Your task to perform on an android device: see sites visited before in the chrome app Image 0: 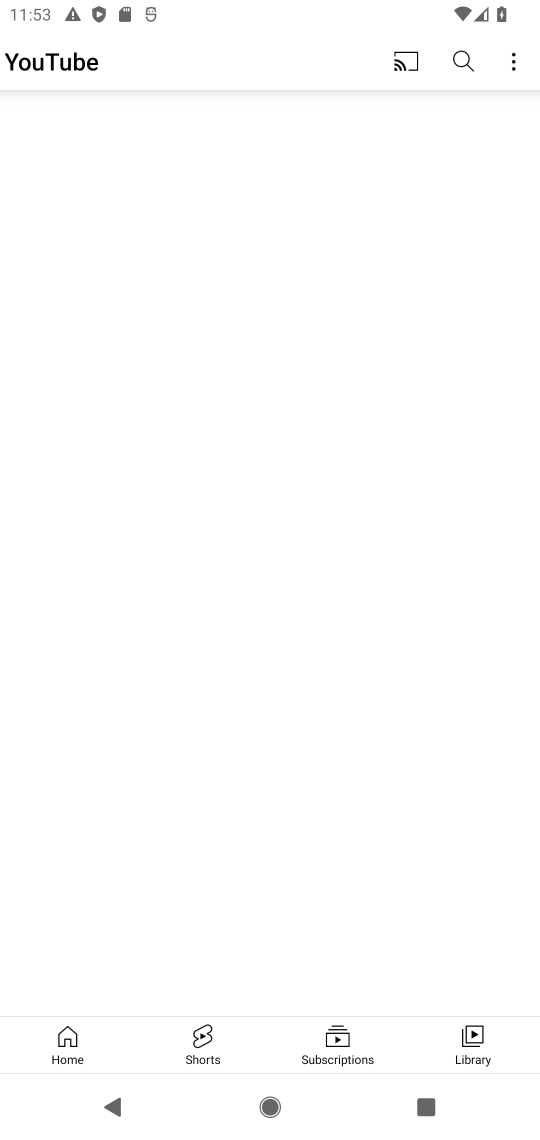
Step 0: click (281, 984)
Your task to perform on an android device: see sites visited before in the chrome app Image 1: 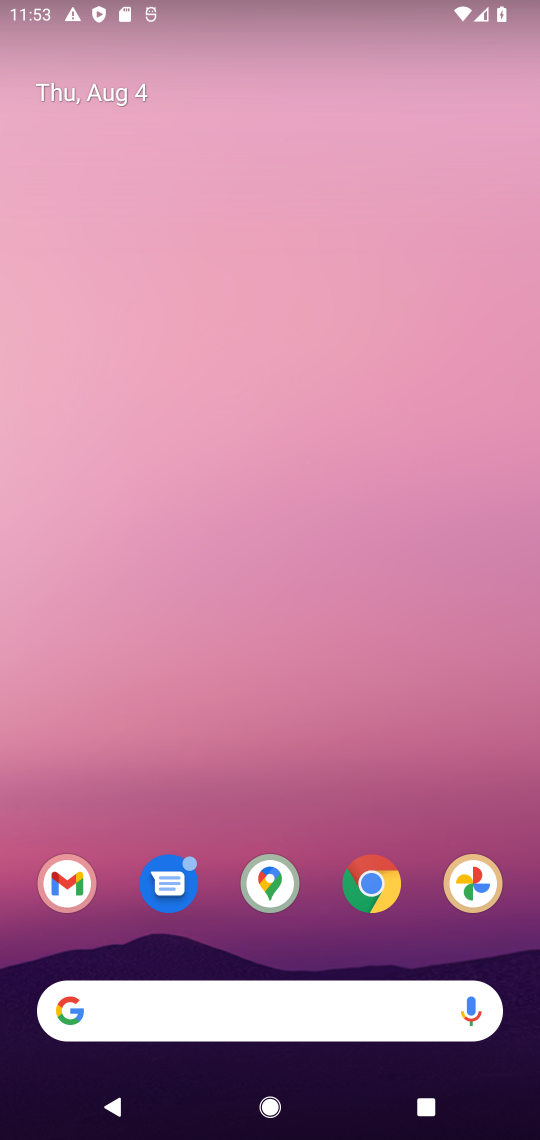
Step 1: drag from (277, 957) to (272, 374)
Your task to perform on an android device: see sites visited before in the chrome app Image 2: 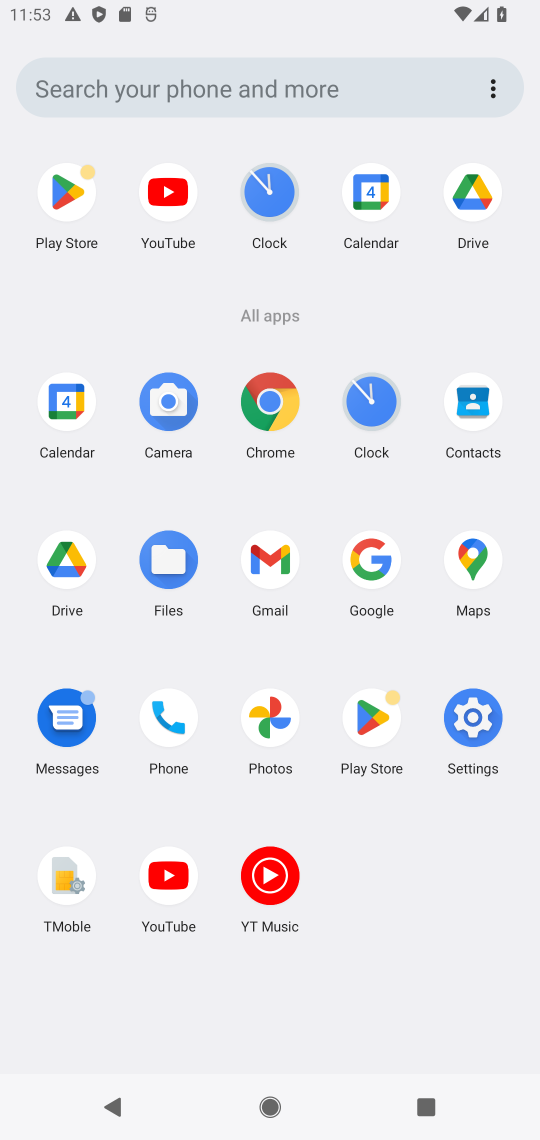
Step 2: click (273, 552)
Your task to perform on an android device: see sites visited before in the chrome app Image 3: 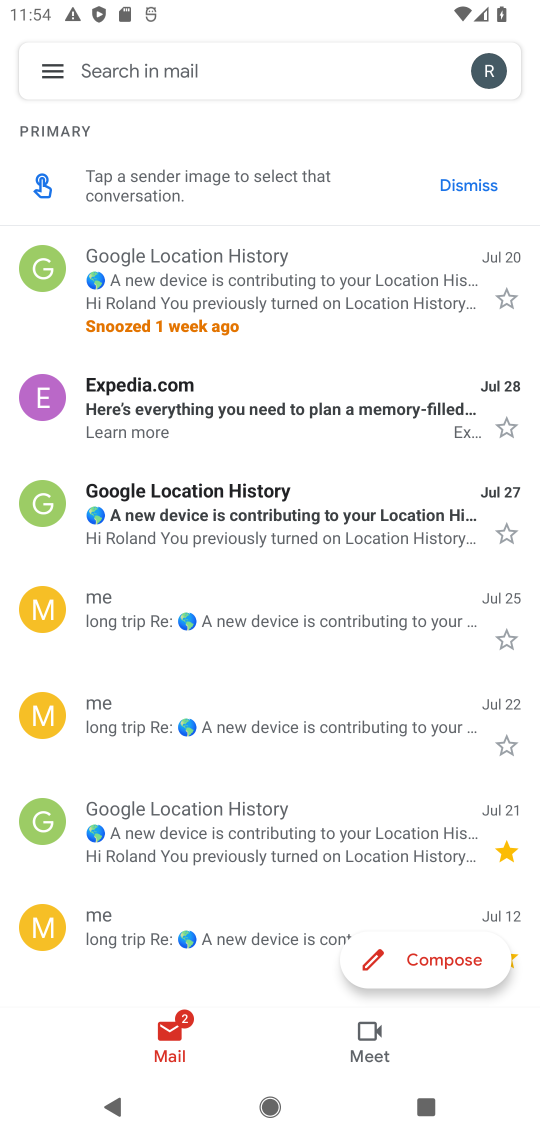
Step 3: click (38, 72)
Your task to perform on an android device: see sites visited before in the chrome app Image 4: 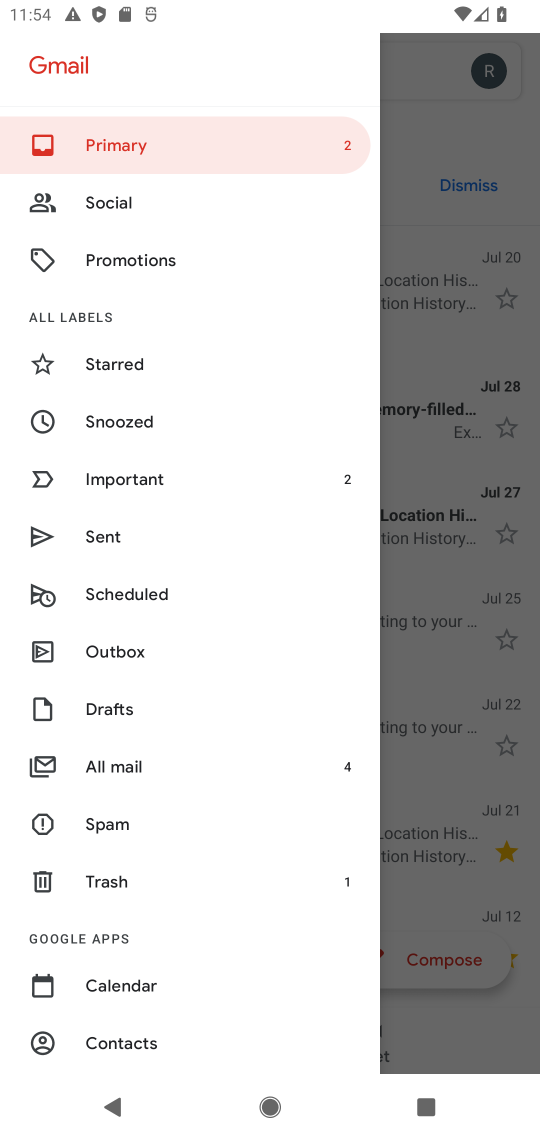
Step 4: press home button
Your task to perform on an android device: see sites visited before in the chrome app Image 5: 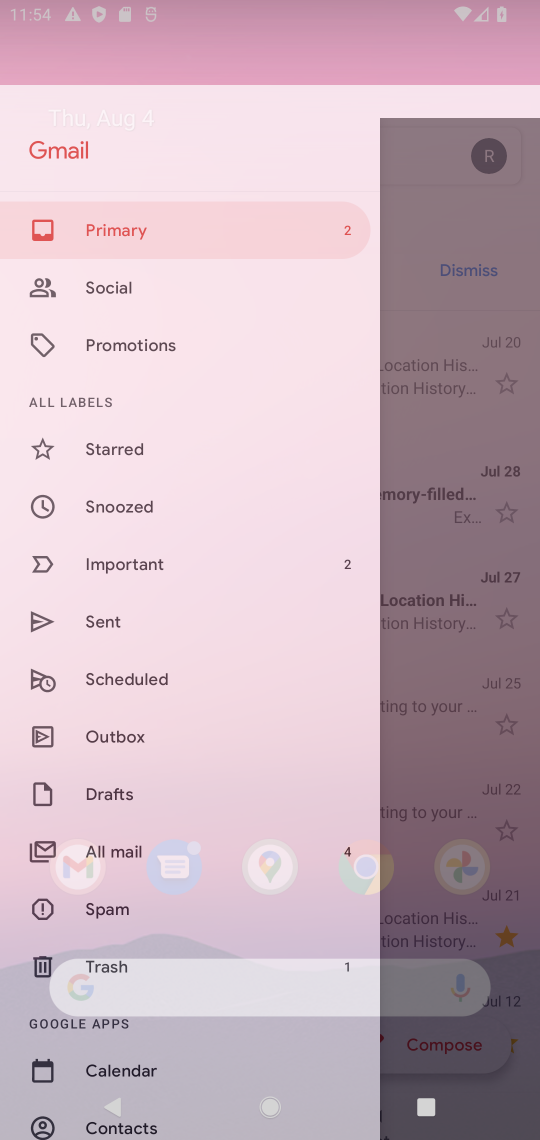
Step 5: drag from (258, 979) to (340, 360)
Your task to perform on an android device: see sites visited before in the chrome app Image 6: 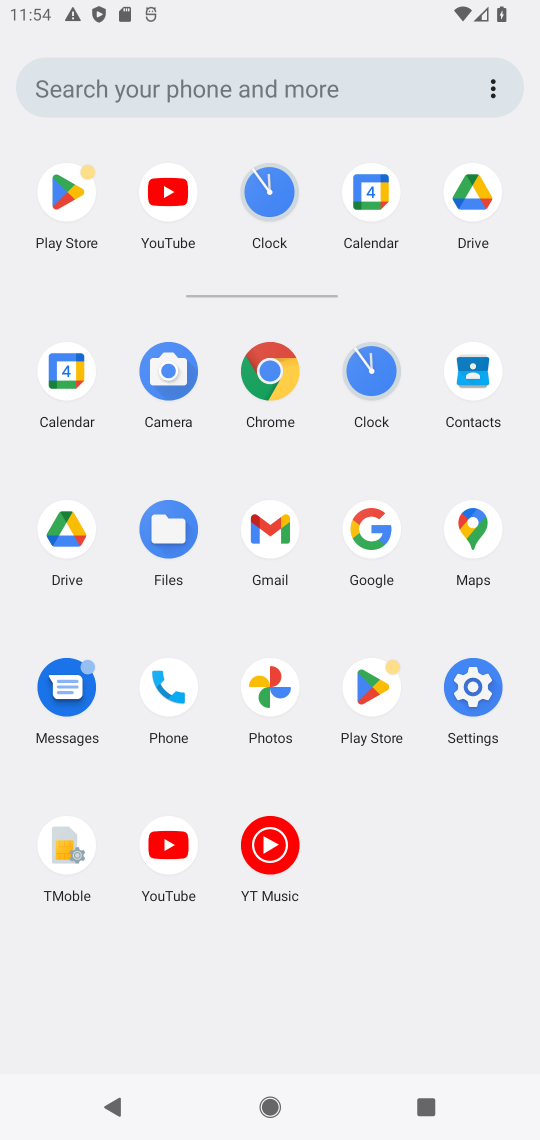
Step 6: click (272, 365)
Your task to perform on an android device: see sites visited before in the chrome app Image 7: 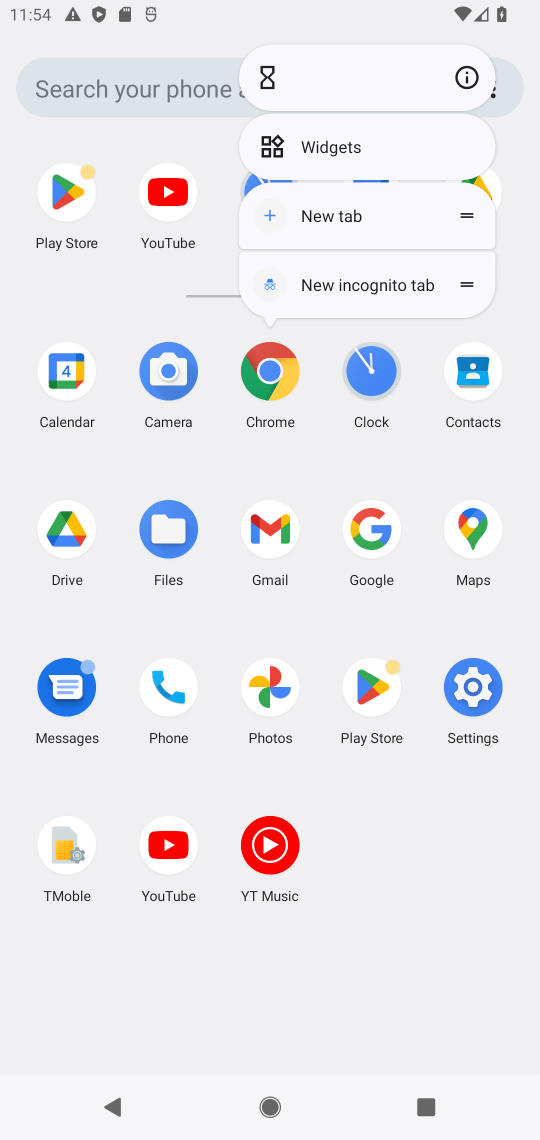
Step 7: click (462, 84)
Your task to perform on an android device: see sites visited before in the chrome app Image 8: 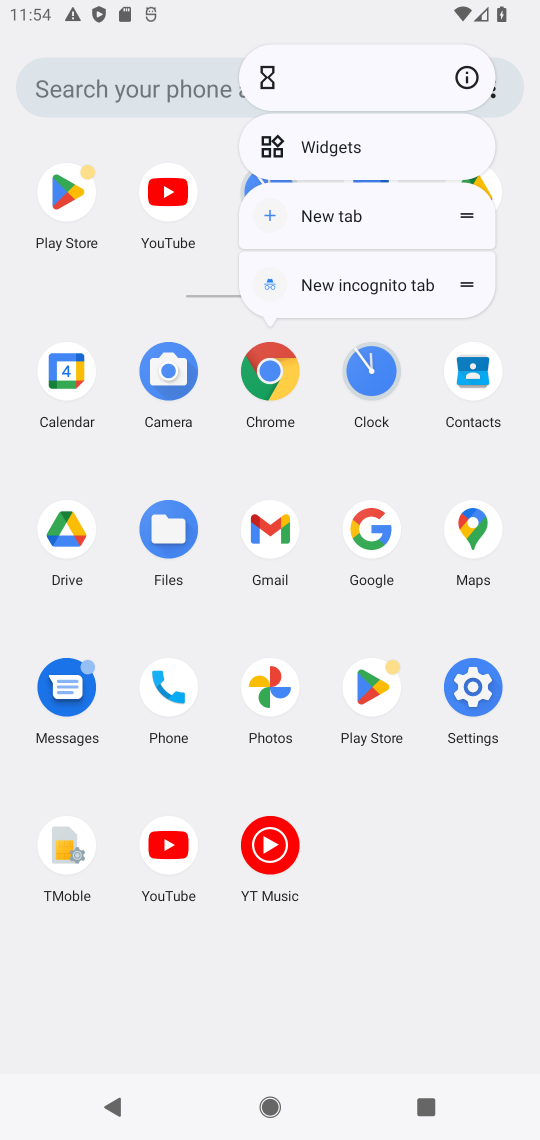
Step 8: click (484, 64)
Your task to perform on an android device: see sites visited before in the chrome app Image 9: 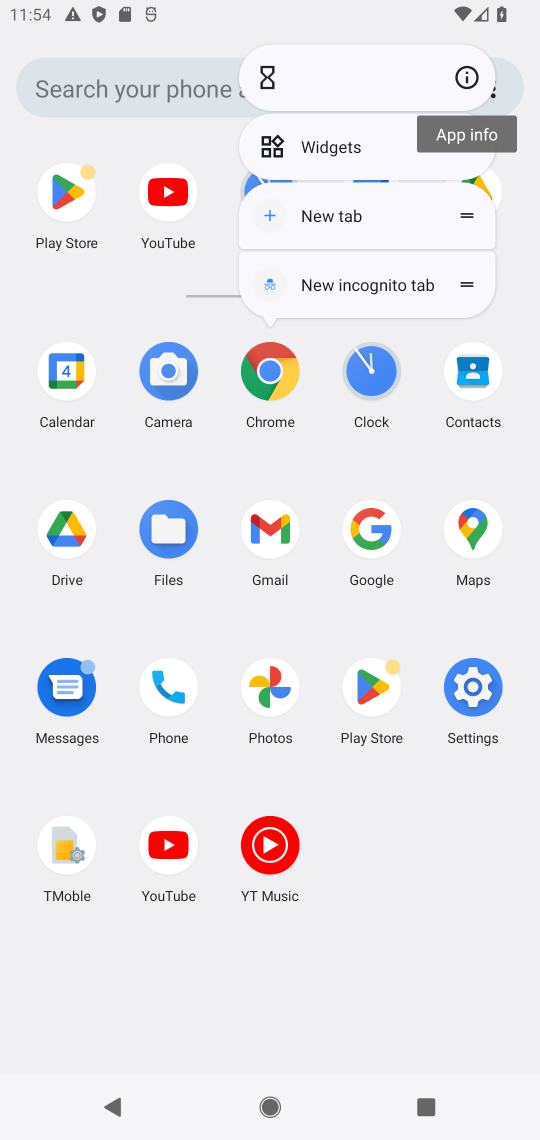
Step 9: click (471, 72)
Your task to perform on an android device: see sites visited before in the chrome app Image 10: 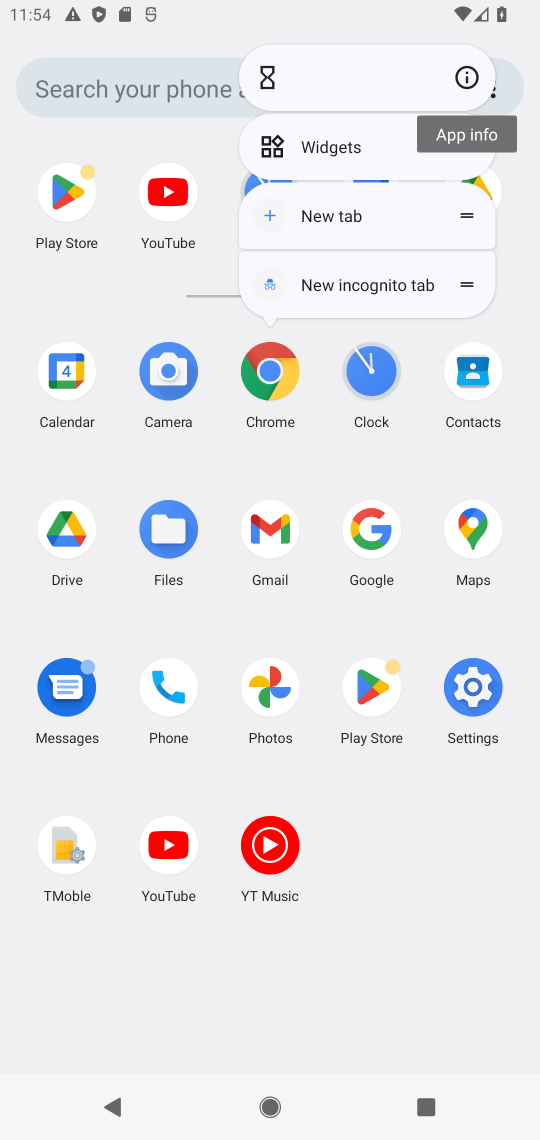
Step 10: click (471, 75)
Your task to perform on an android device: see sites visited before in the chrome app Image 11: 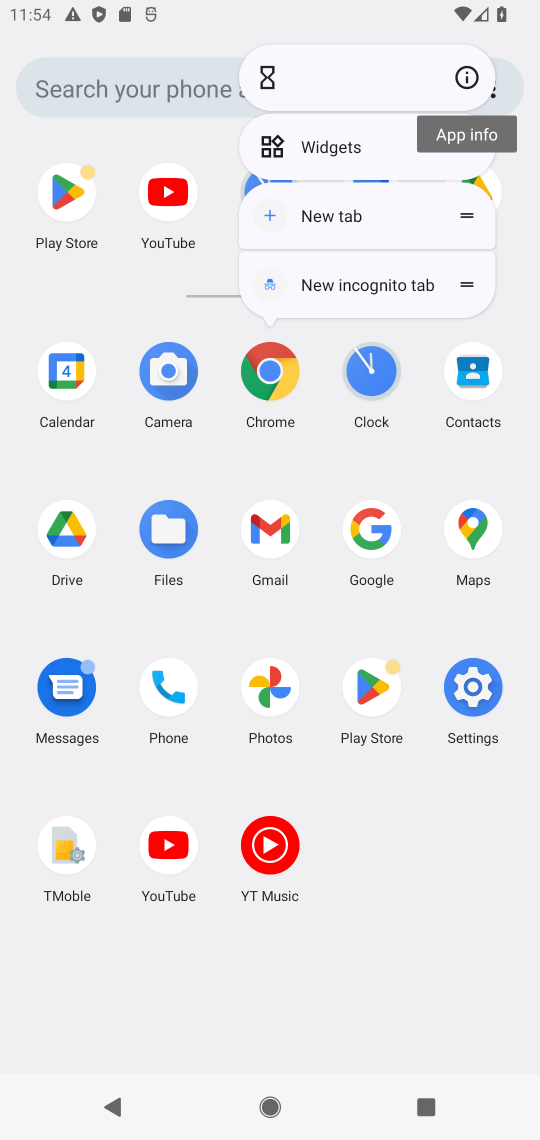
Step 11: click (471, 75)
Your task to perform on an android device: see sites visited before in the chrome app Image 12: 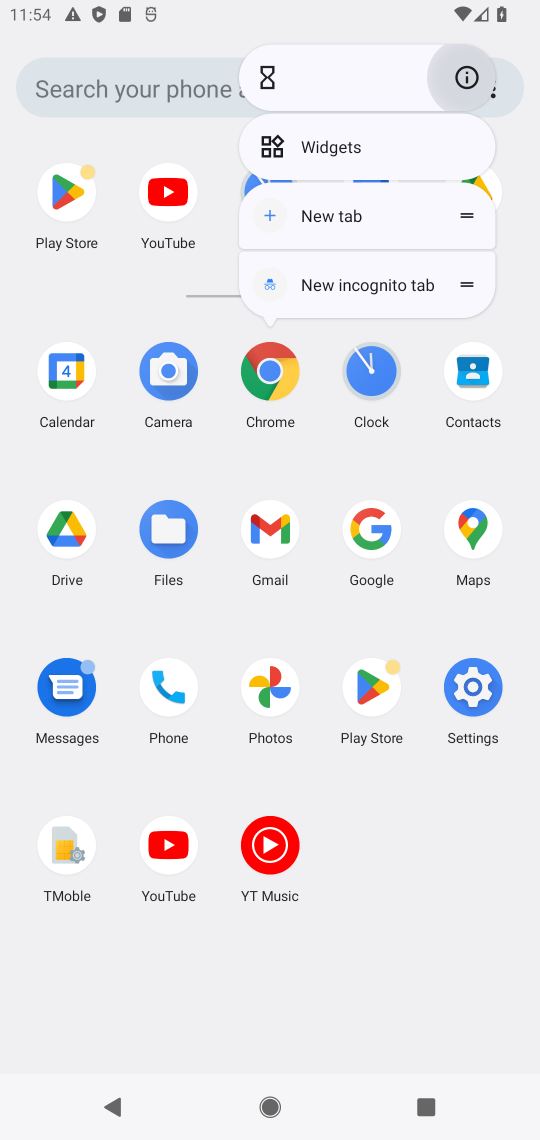
Step 12: click (463, 91)
Your task to perform on an android device: see sites visited before in the chrome app Image 13: 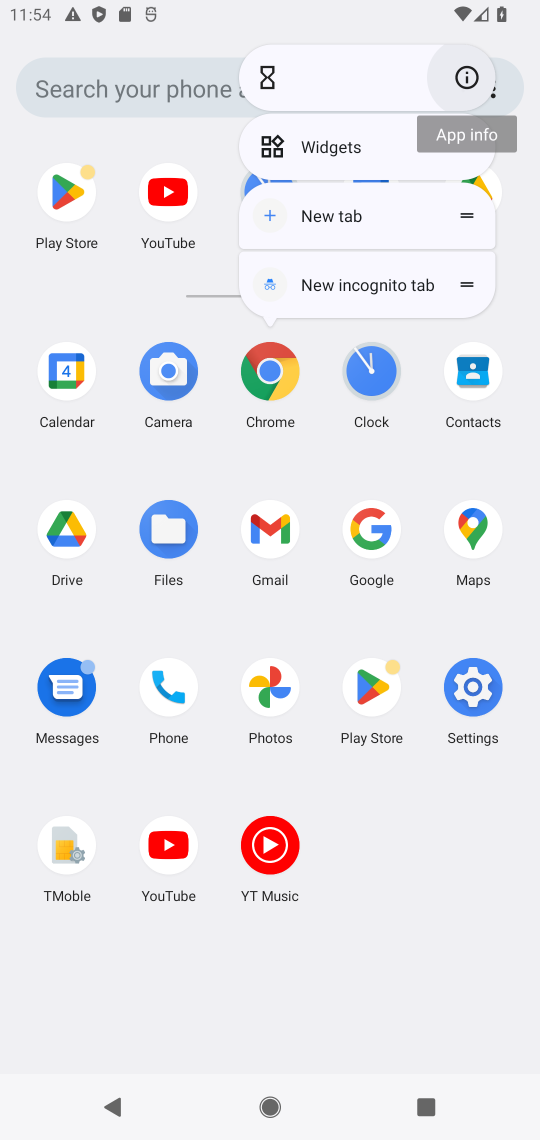
Step 13: click (463, 91)
Your task to perform on an android device: see sites visited before in the chrome app Image 14: 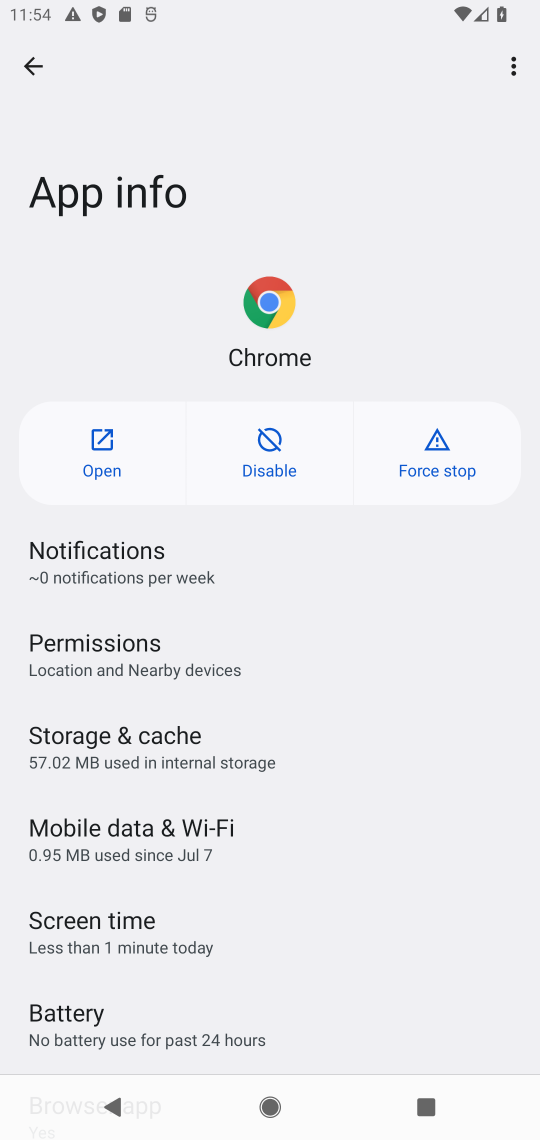
Step 14: click (102, 458)
Your task to perform on an android device: see sites visited before in the chrome app Image 15: 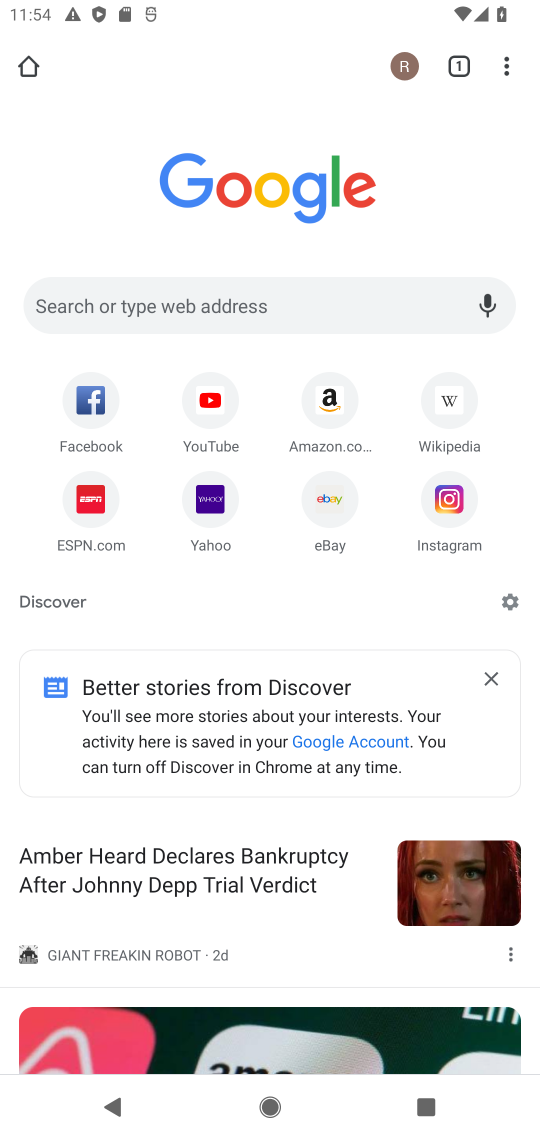
Step 15: task complete